Your task to perform on an android device: Go to Android settings Image 0: 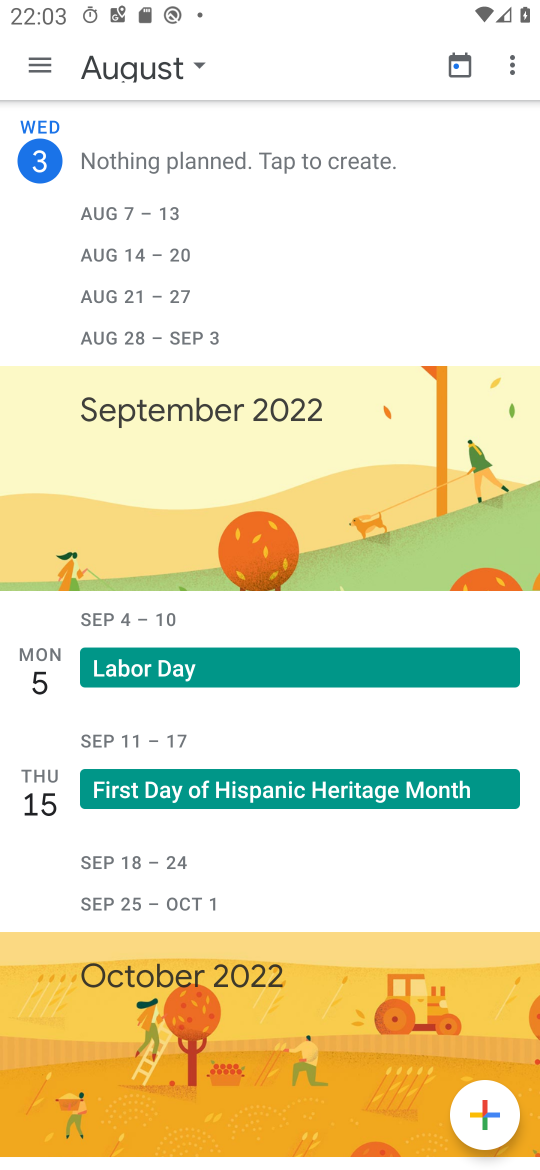
Step 0: press home button
Your task to perform on an android device: Go to Android settings Image 1: 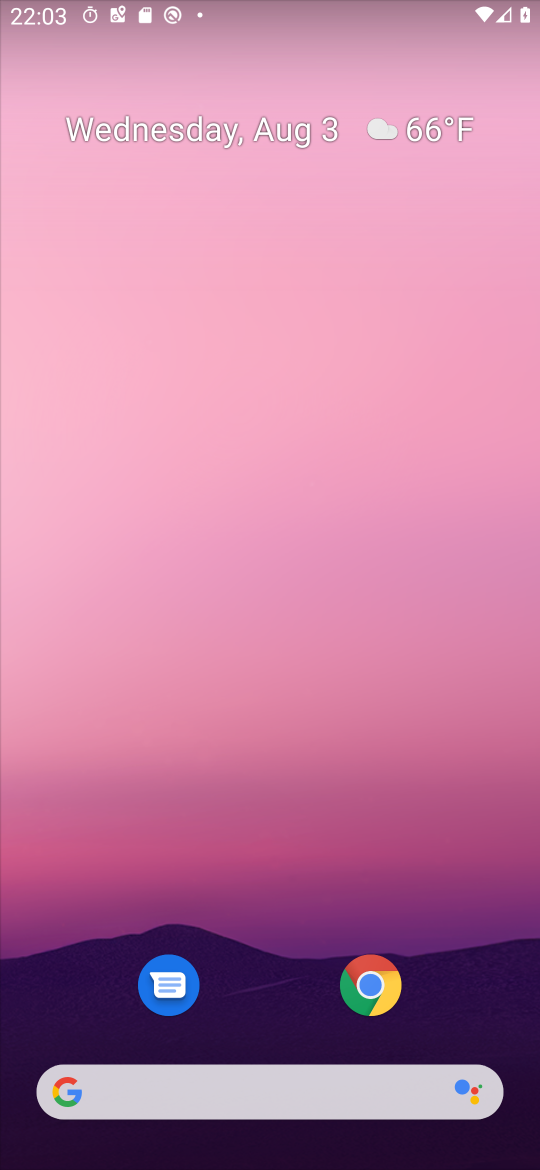
Step 1: drag from (274, 976) to (249, 277)
Your task to perform on an android device: Go to Android settings Image 2: 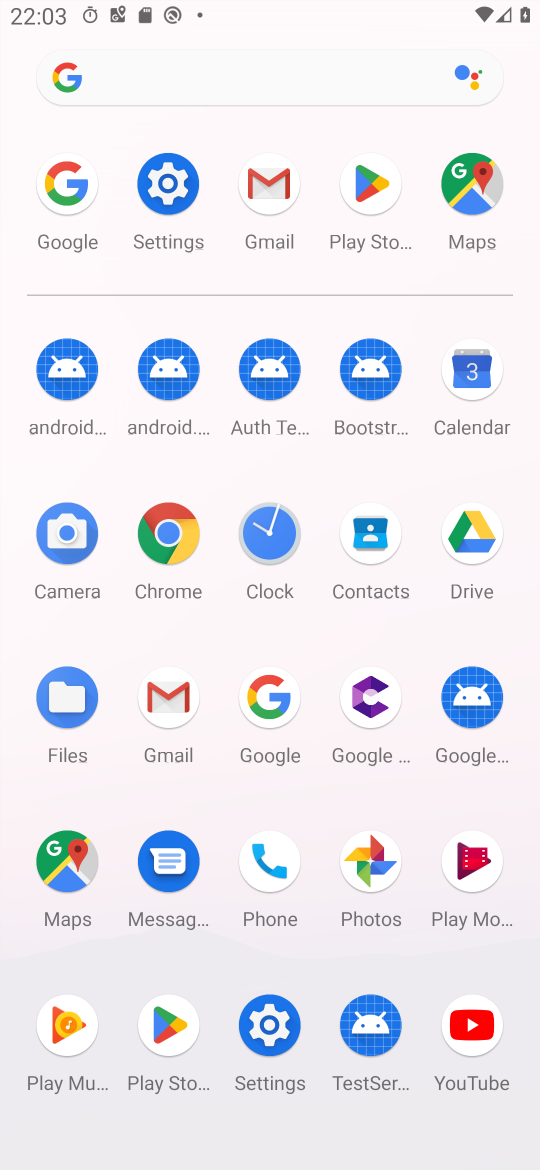
Step 2: click (184, 192)
Your task to perform on an android device: Go to Android settings Image 3: 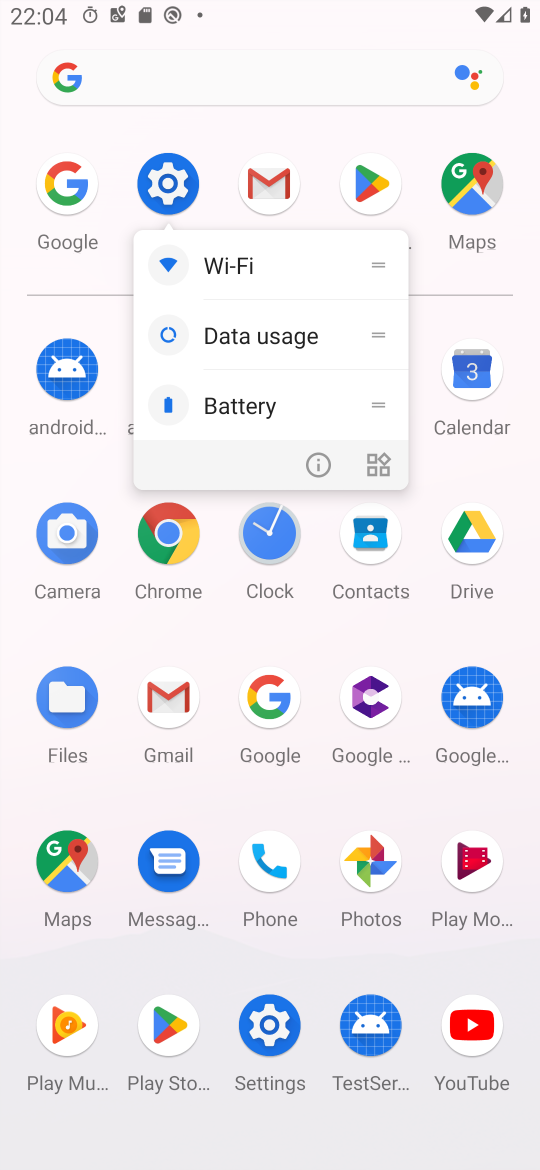
Step 3: click (184, 192)
Your task to perform on an android device: Go to Android settings Image 4: 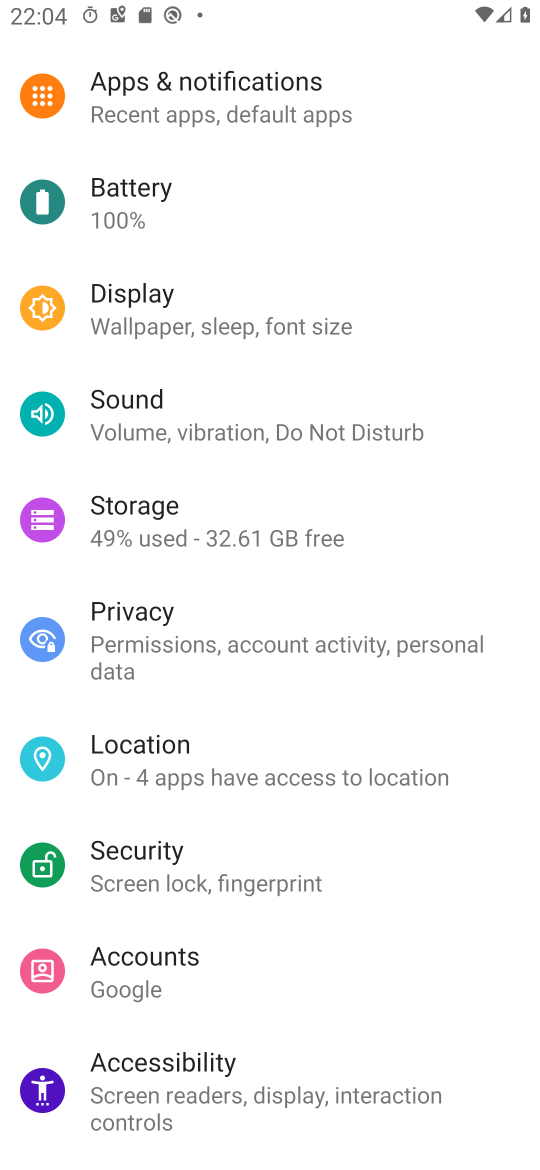
Step 4: task complete